Your task to perform on an android device: Check the weather Image 0: 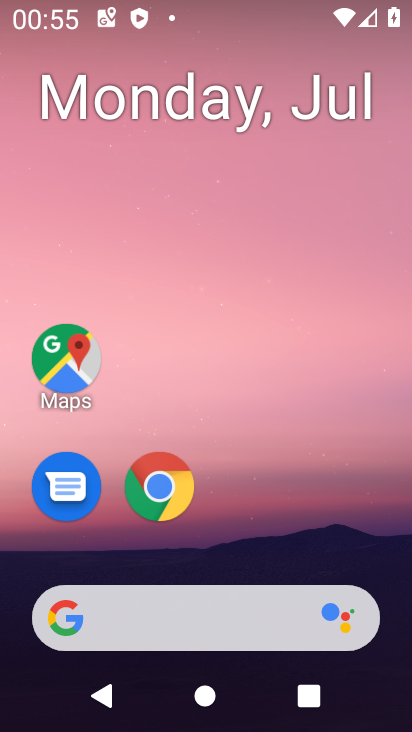
Step 0: press home button
Your task to perform on an android device: Check the weather Image 1: 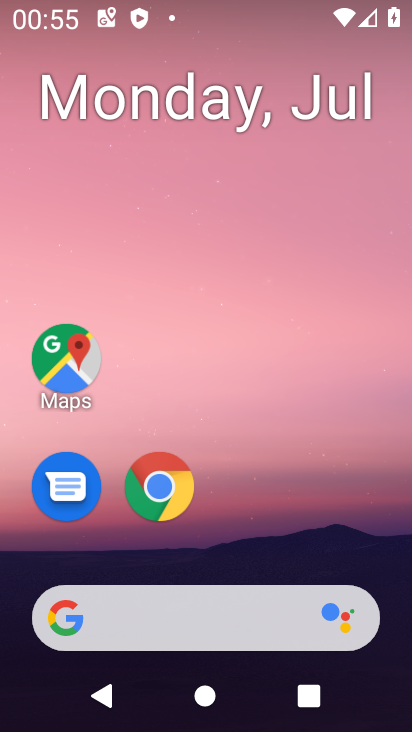
Step 1: click (168, 612)
Your task to perform on an android device: Check the weather Image 2: 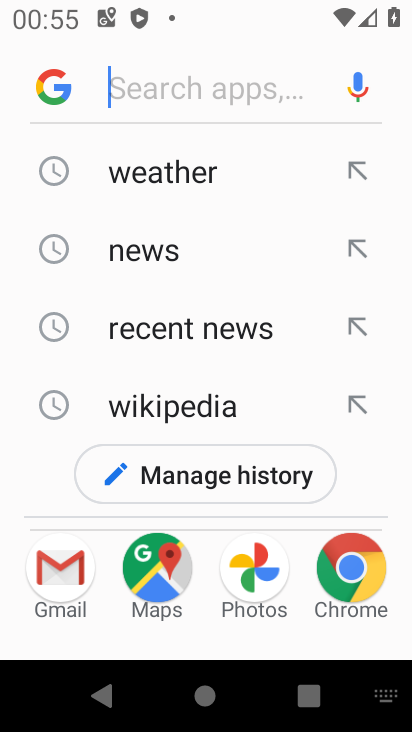
Step 2: click (204, 174)
Your task to perform on an android device: Check the weather Image 3: 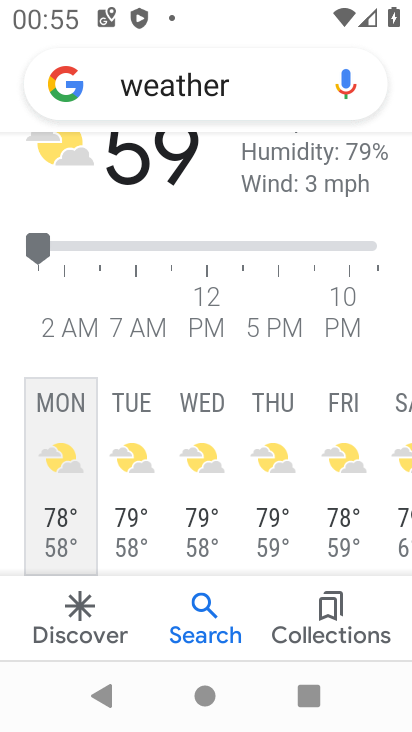
Step 3: task complete